Your task to perform on an android device: open device folders in google photos Image 0: 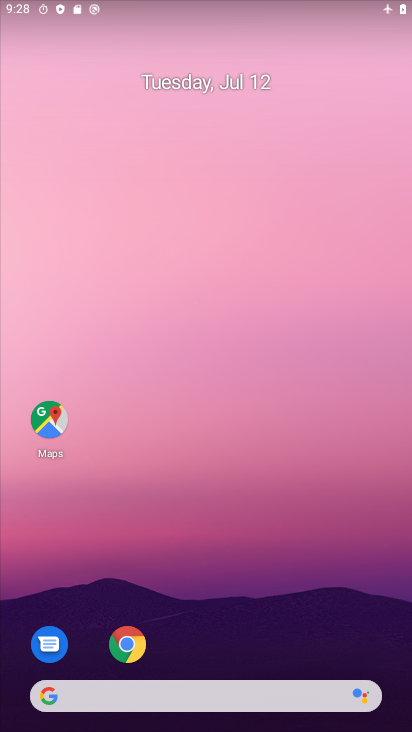
Step 0: drag from (197, 647) to (162, 141)
Your task to perform on an android device: open device folders in google photos Image 1: 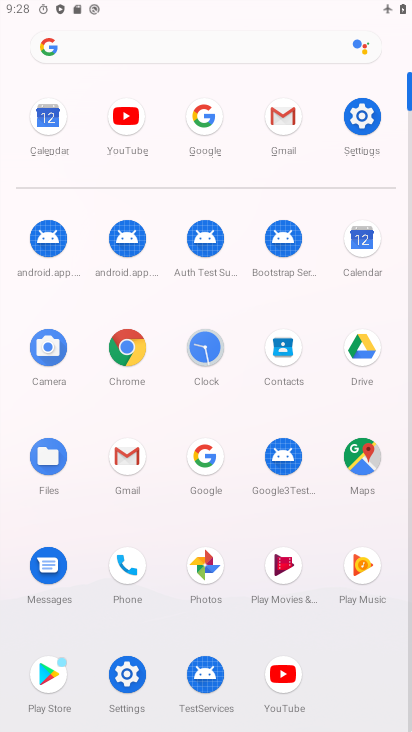
Step 1: click (192, 583)
Your task to perform on an android device: open device folders in google photos Image 2: 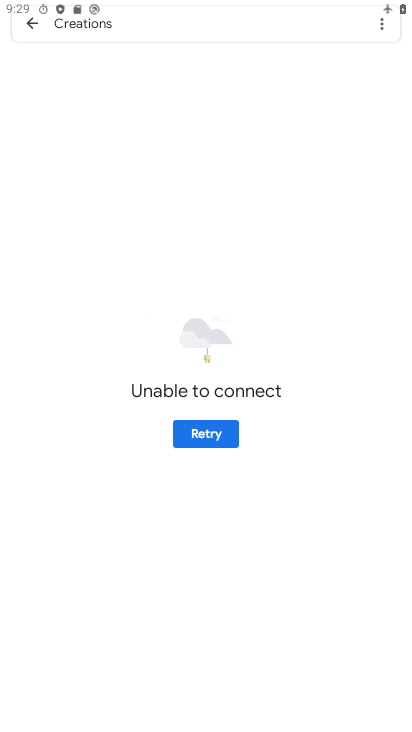
Step 2: press home button
Your task to perform on an android device: open device folders in google photos Image 3: 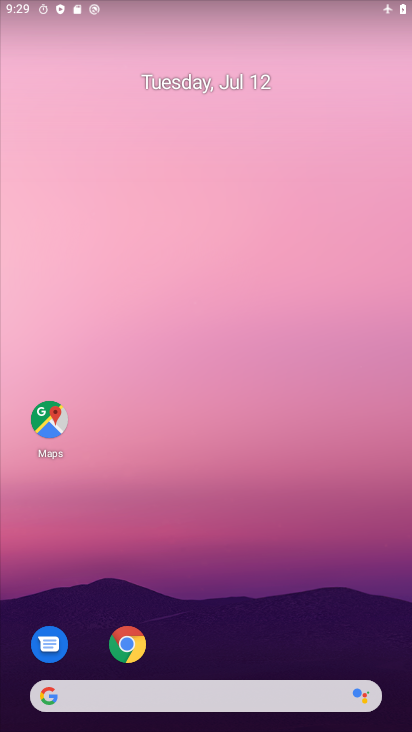
Step 3: drag from (219, 641) to (207, 152)
Your task to perform on an android device: open device folders in google photos Image 4: 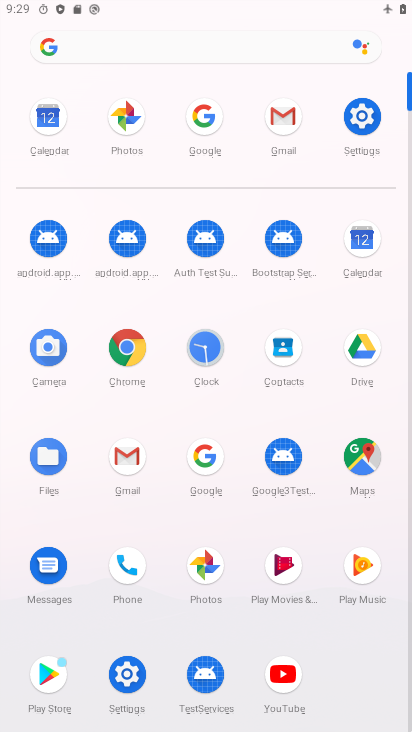
Step 4: click (140, 123)
Your task to perform on an android device: open device folders in google photos Image 5: 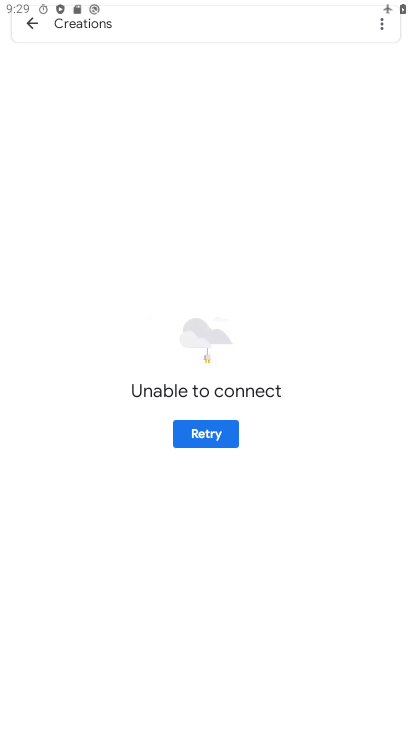
Step 5: click (37, 26)
Your task to perform on an android device: open device folders in google photos Image 6: 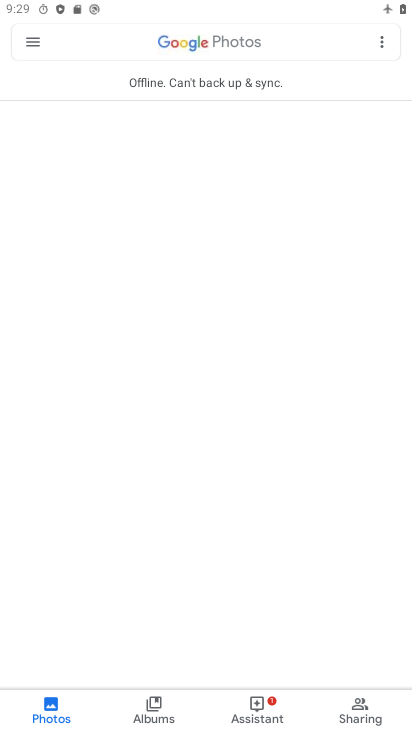
Step 6: click (37, 26)
Your task to perform on an android device: open device folders in google photos Image 7: 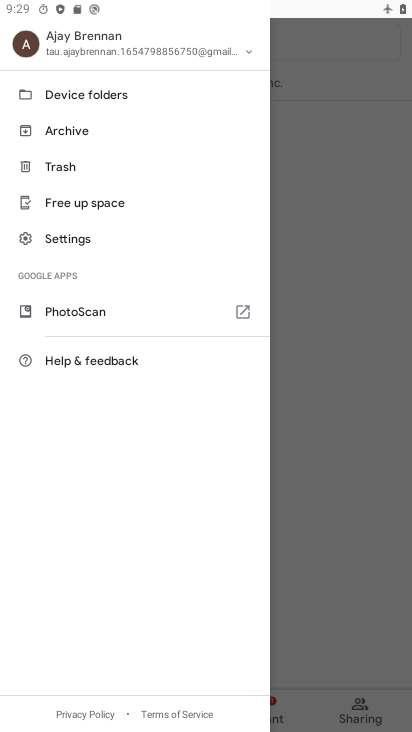
Step 7: click (130, 101)
Your task to perform on an android device: open device folders in google photos Image 8: 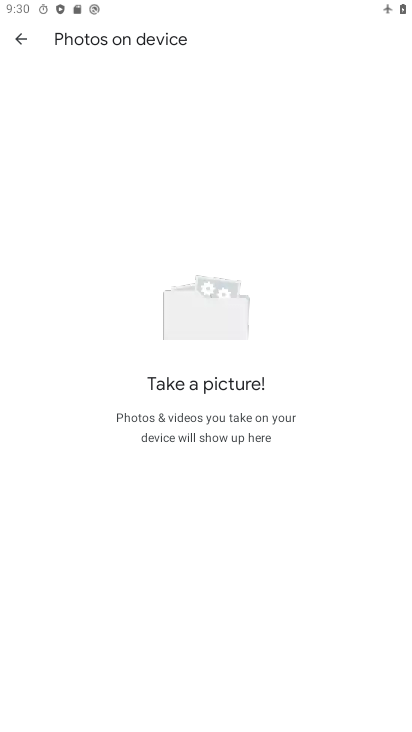
Step 8: click (25, 40)
Your task to perform on an android device: open device folders in google photos Image 9: 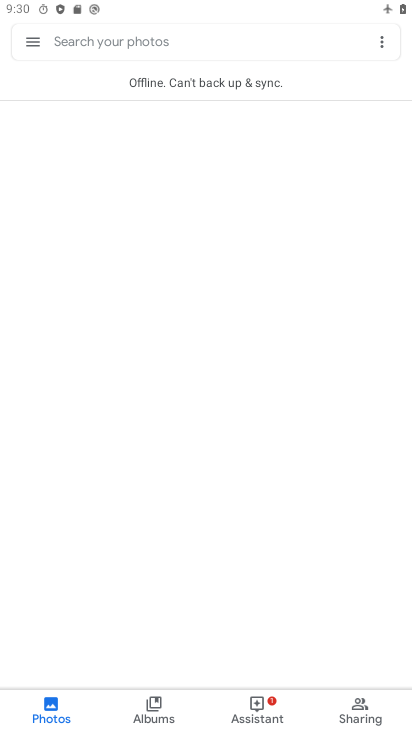
Step 9: click (25, 40)
Your task to perform on an android device: open device folders in google photos Image 10: 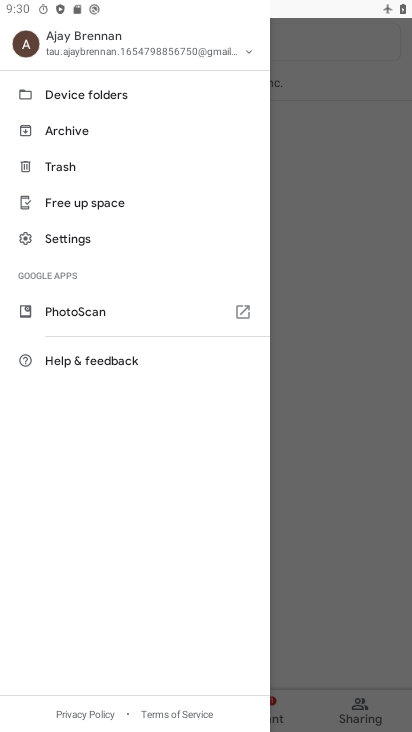
Step 10: click (112, 92)
Your task to perform on an android device: open device folders in google photos Image 11: 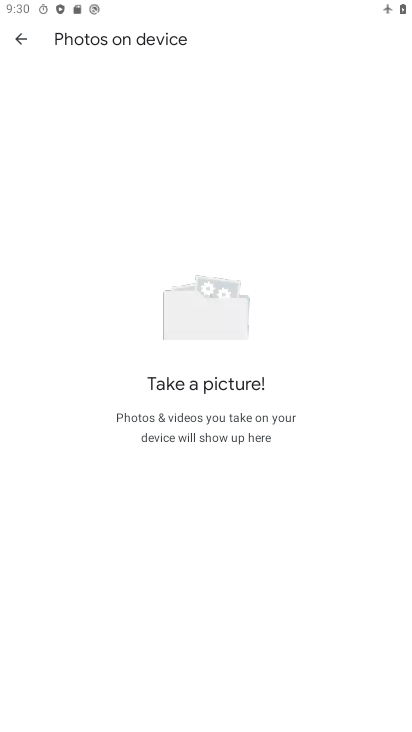
Step 11: task complete